Your task to perform on an android device: Show me recent news Image 0: 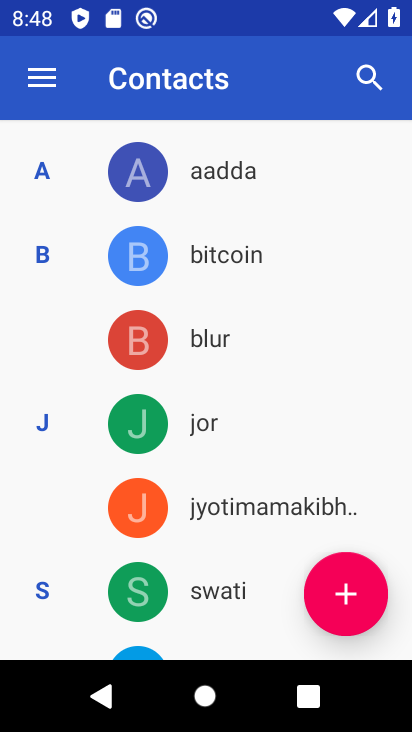
Step 0: press back button
Your task to perform on an android device: Show me recent news Image 1: 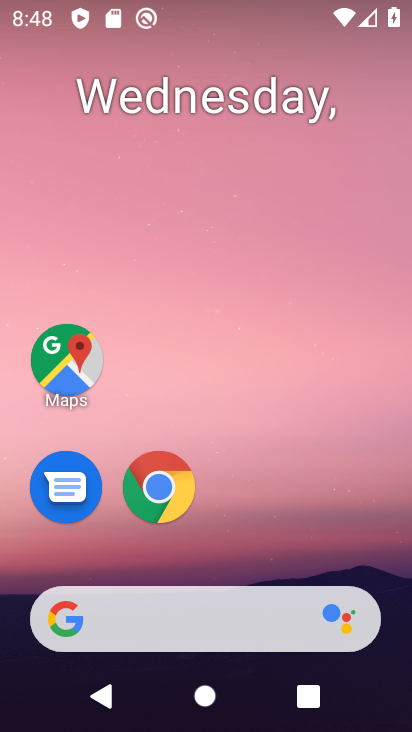
Step 1: click (214, 633)
Your task to perform on an android device: Show me recent news Image 2: 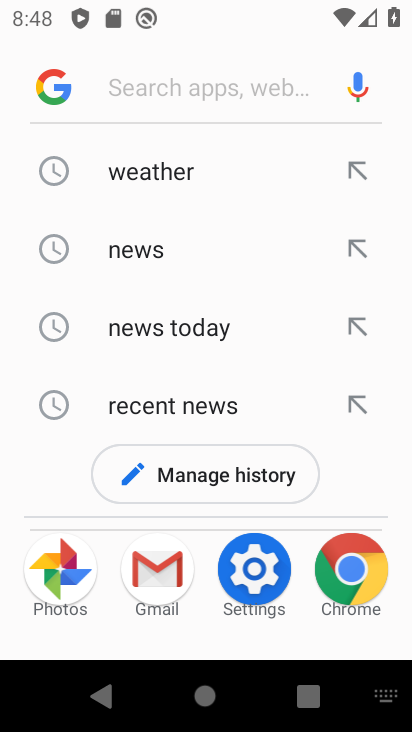
Step 2: click (149, 250)
Your task to perform on an android device: Show me recent news Image 3: 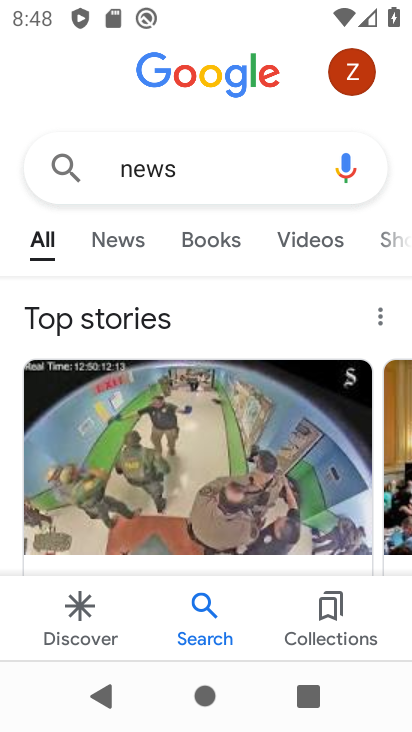
Step 3: click (124, 160)
Your task to perform on an android device: Show me recent news Image 4: 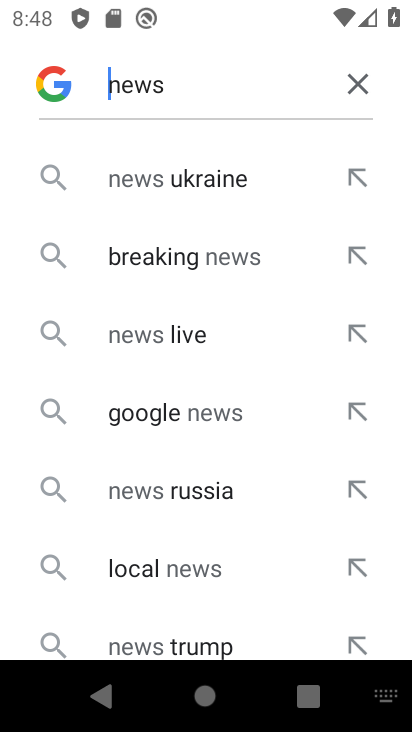
Step 4: click (255, 83)
Your task to perform on an android device: Show me recent news Image 5: 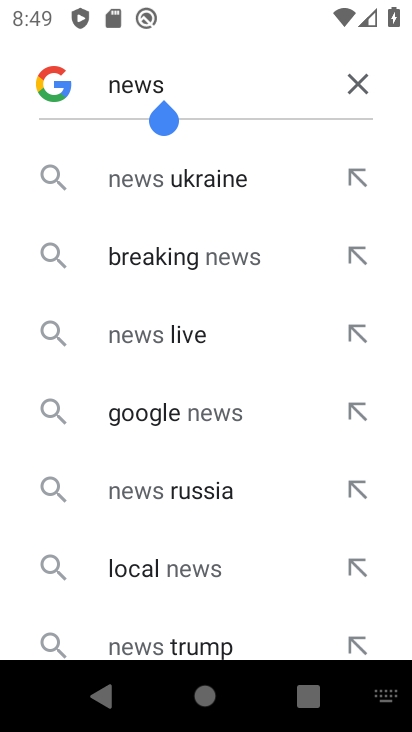
Step 5: click (97, 83)
Your task to perform on an android device: Show me recent news Image 6: 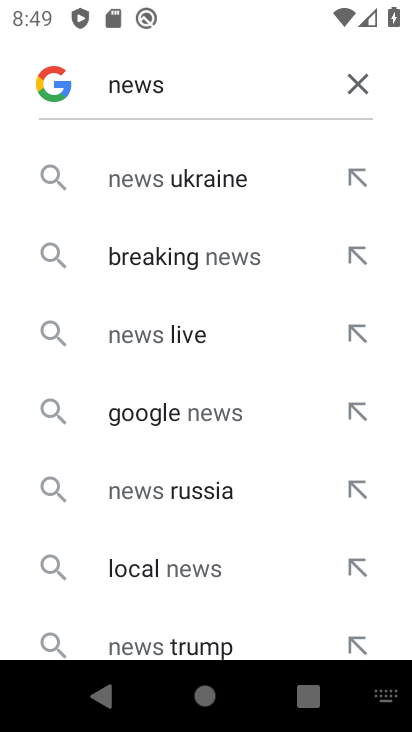
Step 6: click (340, 74)
Your task to perform on an android device: Show me recent news Image 7: 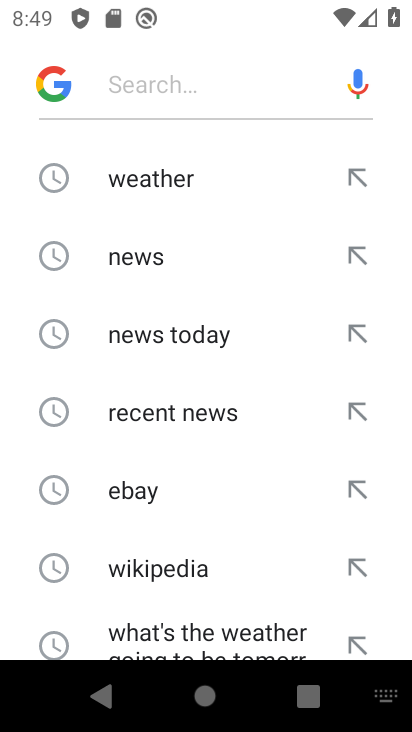
Step 7: click (150, 246)
Your task to perform on an android device: Show me recent news Image 8: 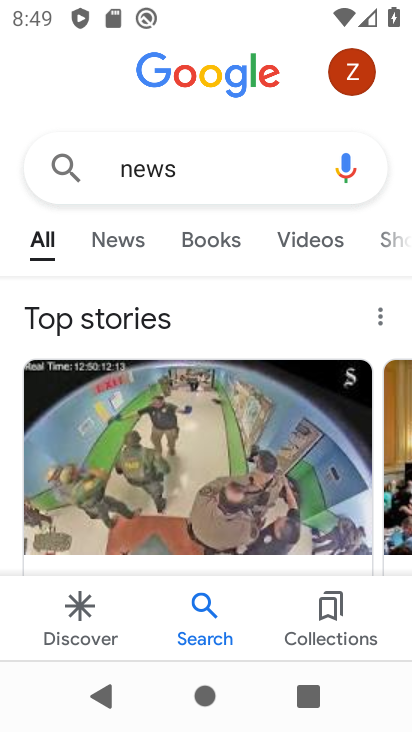
Step 8: task complete